Your task to perform on an android device: Show me productivity apps on the Play Store Image 0: 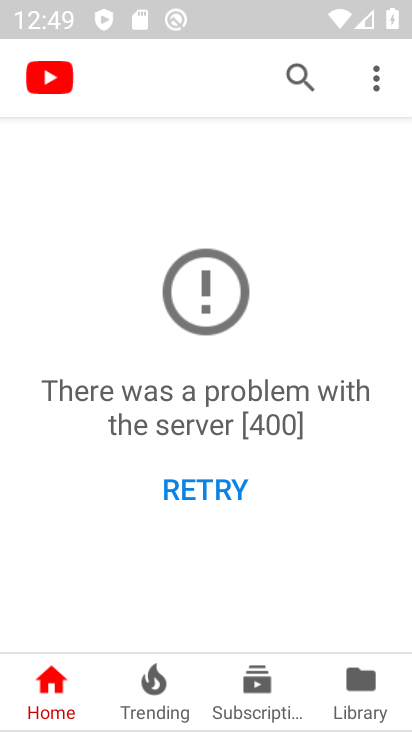
Step 0: press home button
Your task to perform on an android device: Show me productivity apps on the Play Store Image 1: 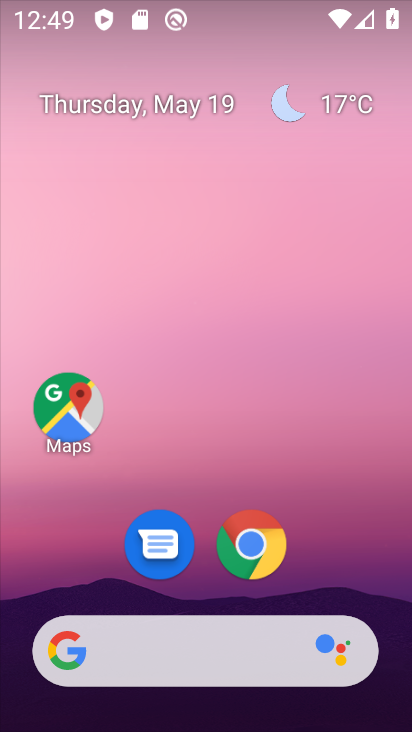
Step 1: drag from (225, 726) to (236, 115)
Your task to perform on an android device: Show me productivity apps on the Play Store Image 2: 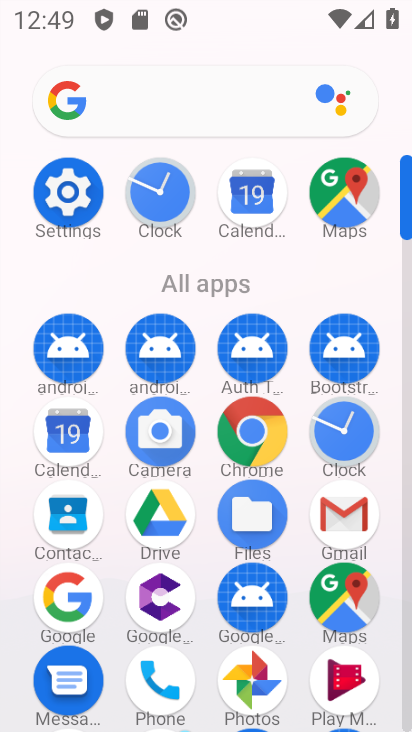
Step 2: drag from (206, 655) to (214, 340)
Your task to perform on an android device: Show me productivity apps on the Play Store Image 3: 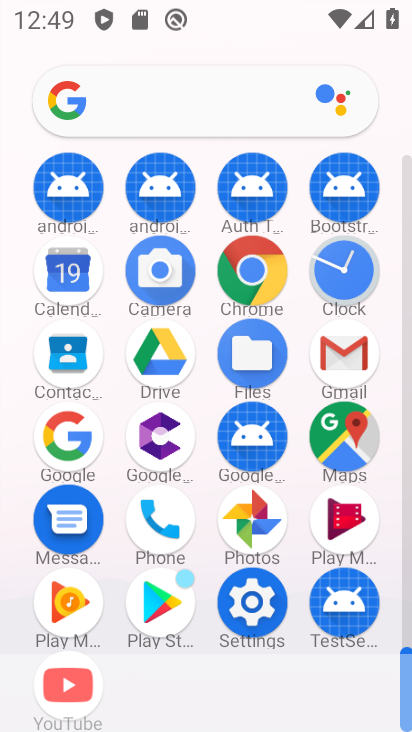
Step 3: click (169, 600)
Your task to perform on an android device: Show me productivity apps on the Play Store Image 4: 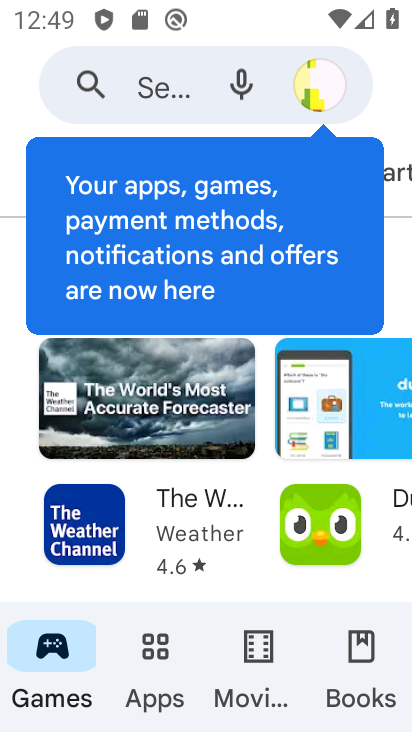
Step 4: click (156, 666)
Your task to perform on an android device: Show me productivity apps on the Play Store Image 5: 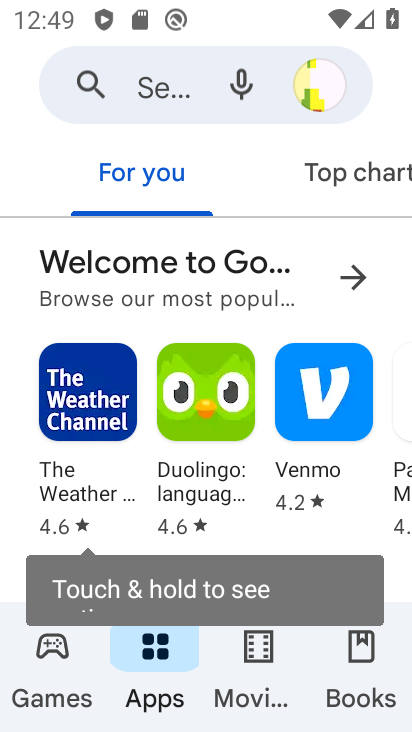
Step 5: drag from (355, 178) to (191, 181)
Your task to perform on an android device: Show me productivity apps on the Play Store Image 6: 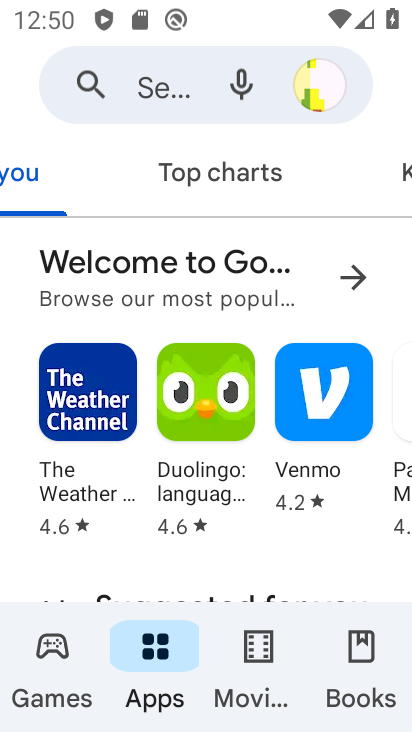
Step 6: drag from (328, 169) to (19, 152)
Your task to perform on an android device: Show me productivity apps on the Play Store Image 7: 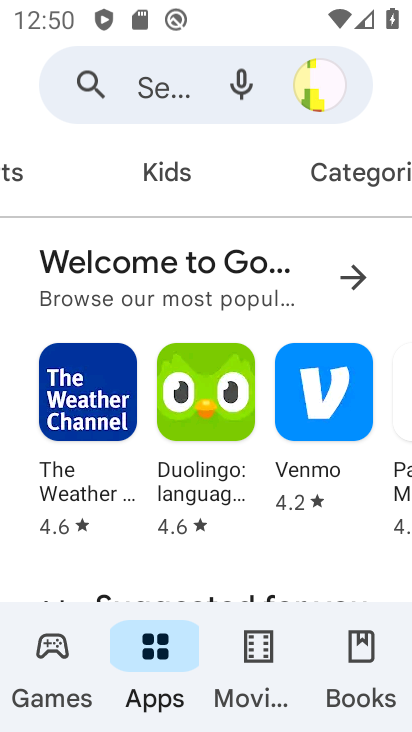
Step 7: drag from (339, 172) to (191, 172)
Your task to perform on an android device: Show me productivity apps on the Play Store Image 8: 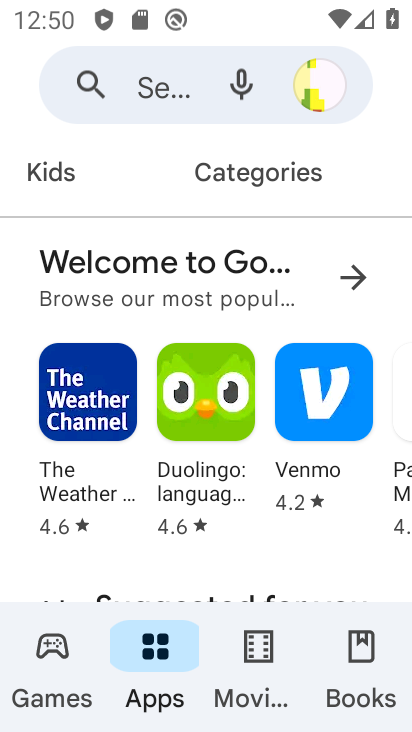
Step 8: click (251, 170)
Your task to perform on an android device: Show me productivity apps on the Play Store Image 9: 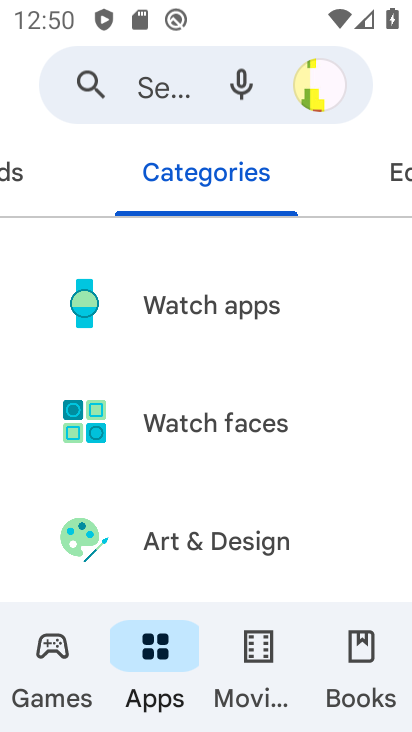
Step 9: drag from (245, 559) to (228, 259)
Your task to perform on an android device: Show me productivity apps on the Play Store Image 10: 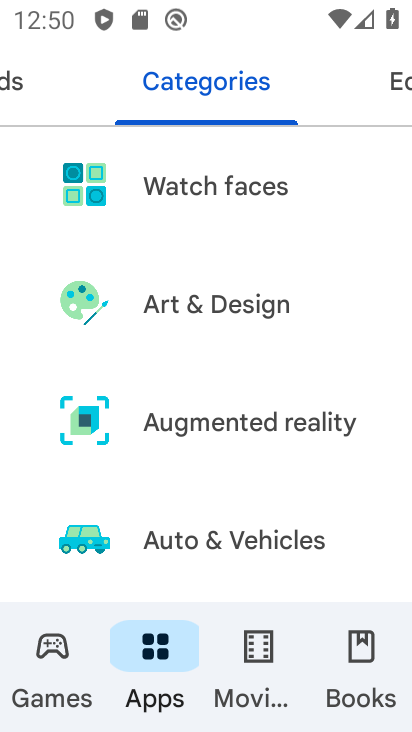
Step 10: drag from (270, 562) to (247, 261)
Your task to perform on an android device: Show me productivity apps on the Play Store Image 11: 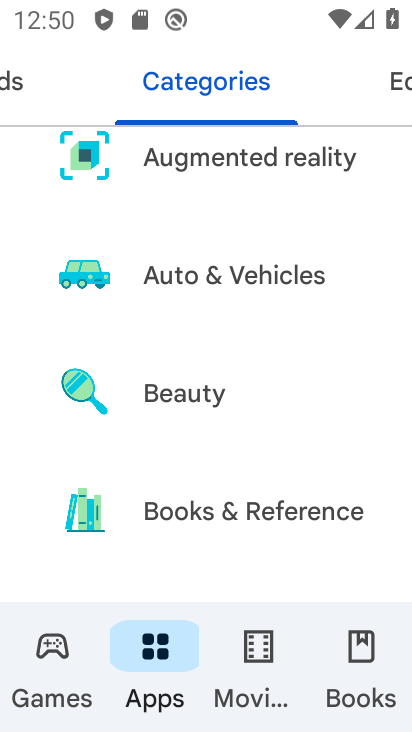
Step 11: drag from (278, 540) to (247, 273)
Your task to perform on an android device: Show me productivity apps on the Play Store Image 12: 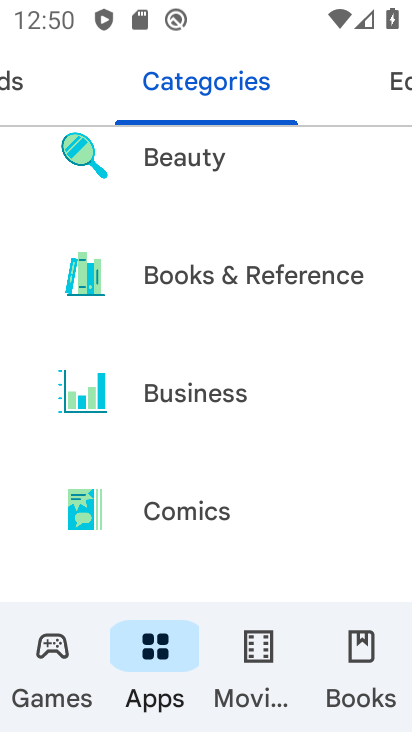
Step 12: drag from (255, 537) to (232, 250)
Your task to perform on an android device: Show me productivity apps on the Play Store Image 13: 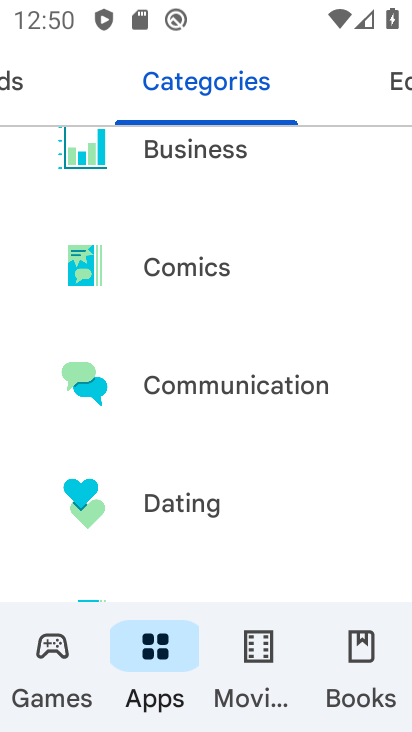
Step 13: drag from (251, 570) to (234, 321)
Your task to perform on an android device: Show me productivity apps on the Play Store Image 14: 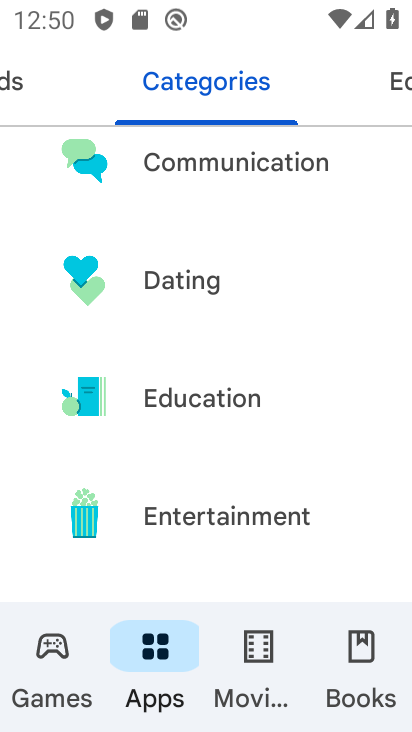
Step 14: drag from (253, 564) to (251, 273)
Your task to perform on an android device: Show me productivity apps on the Play Store Image 15: 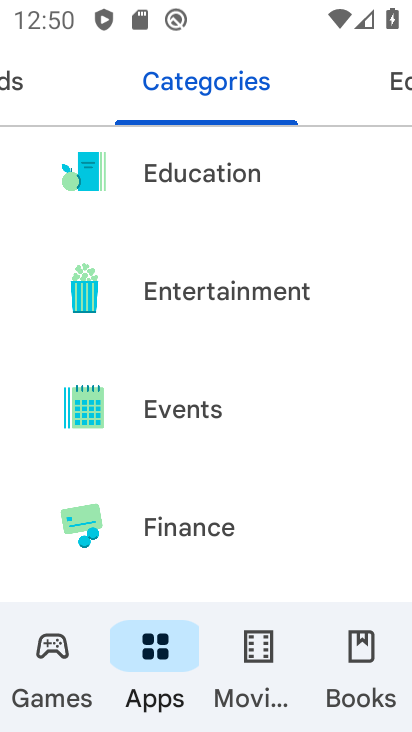
Step 15: drag from (246, 551) to (234, 345)
Your task to perform on an android device: Show me productivity apps on the Play Store Image 16: 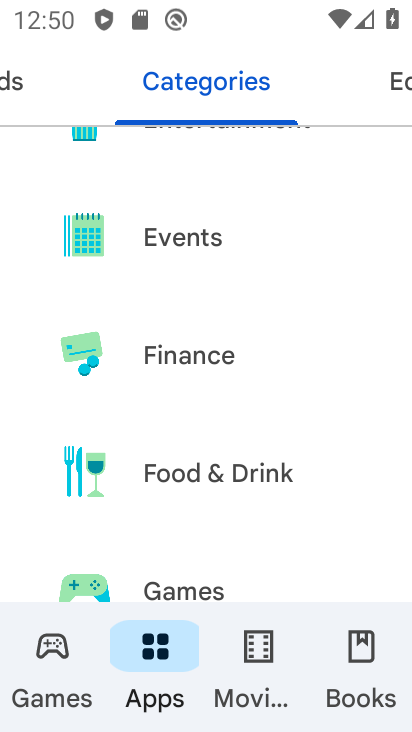
Step 16: drag from (240, 556) to (240, 297)
Your task to perform on an android device: Show me productivity apps on the Play Store Image 17: 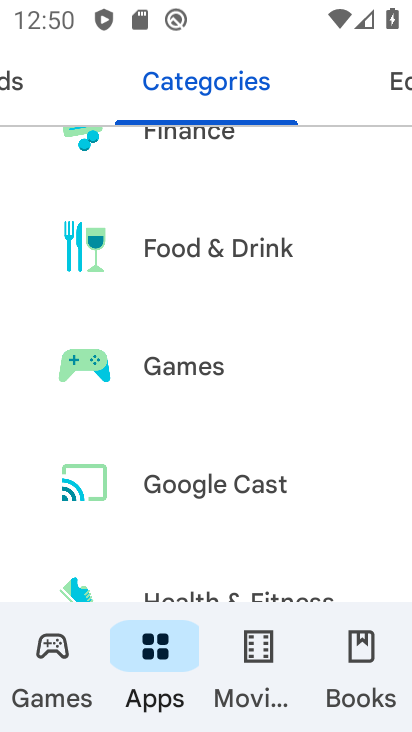
Step 17: drag from (265, 573) to (238, 255)
Your task to perform on an android device: Show me productivity apps on the Play Store Image 18: 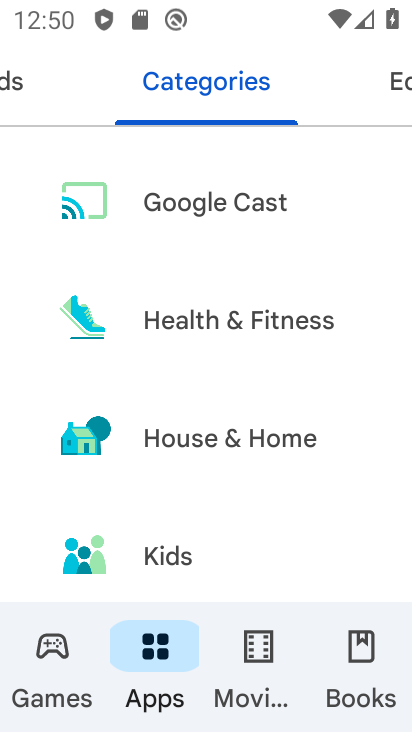
Step 18: drag from (258, 540) to (235, 278)
Your task to perform on an android device: Show me productivity apps on the Play Store Image 19: 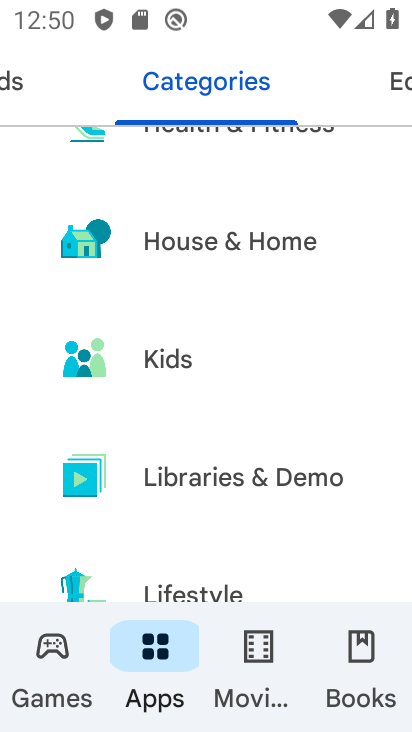
Step 19: drag from (236, 565) to (214, 243)
Your task to perform on an android device: Show me productivity apps on the Play Store Image 20: 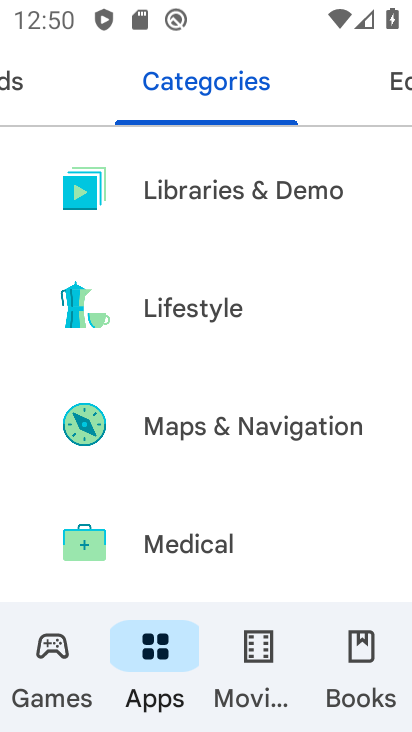
Step 20: drag from (231, 564) to (220, 225)
Your task to perform on an android device: Show me productivity apps on the Play Store Image 21: 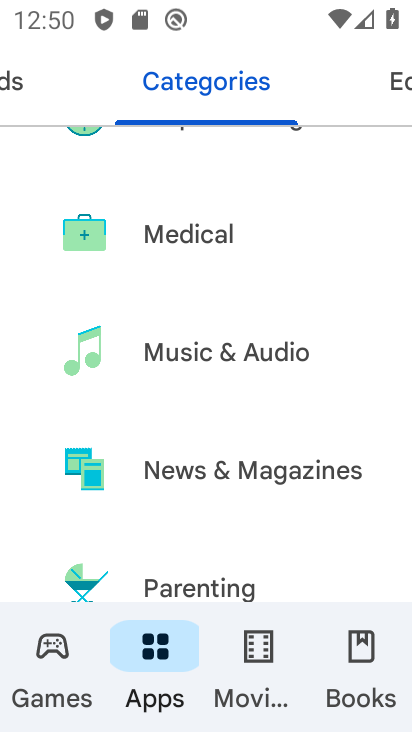
Step 21: drag from (243, 535) to (243, 262)
Your task to perform on an android device: Show me productivity apps on the Play Store Image 22: 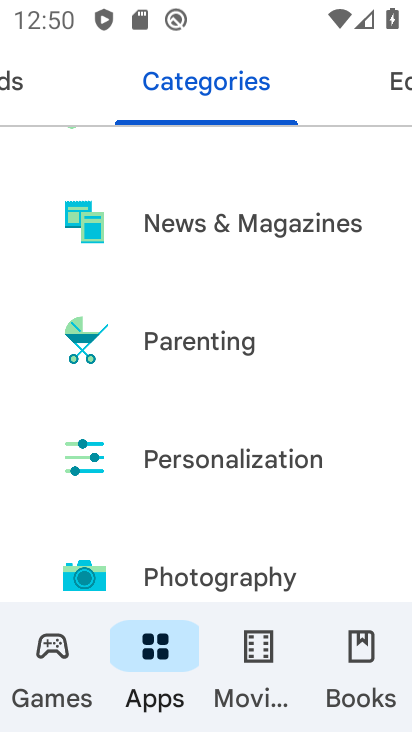
Step 22: drag from (262, 563) to (262, 274)
Your task to perform on an android device: Show me productivity apps on the Play Store Image 23: 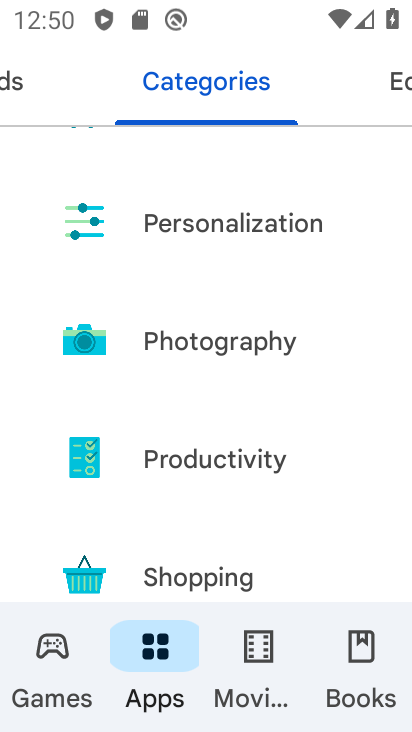
Step 23: click (246, 456)
Your task to perform on an android device: Show me productivity apps on the Play Store Image 24: 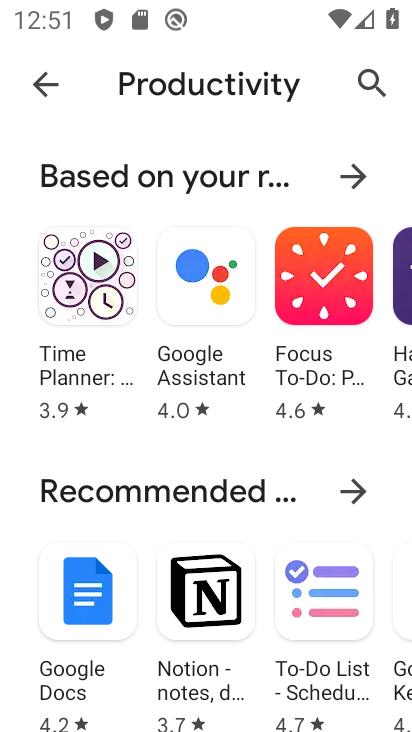
Step 24: task complete